Your task to perform on an android device: Add "razer deathadder" to the cart on walmart.com Image 0: 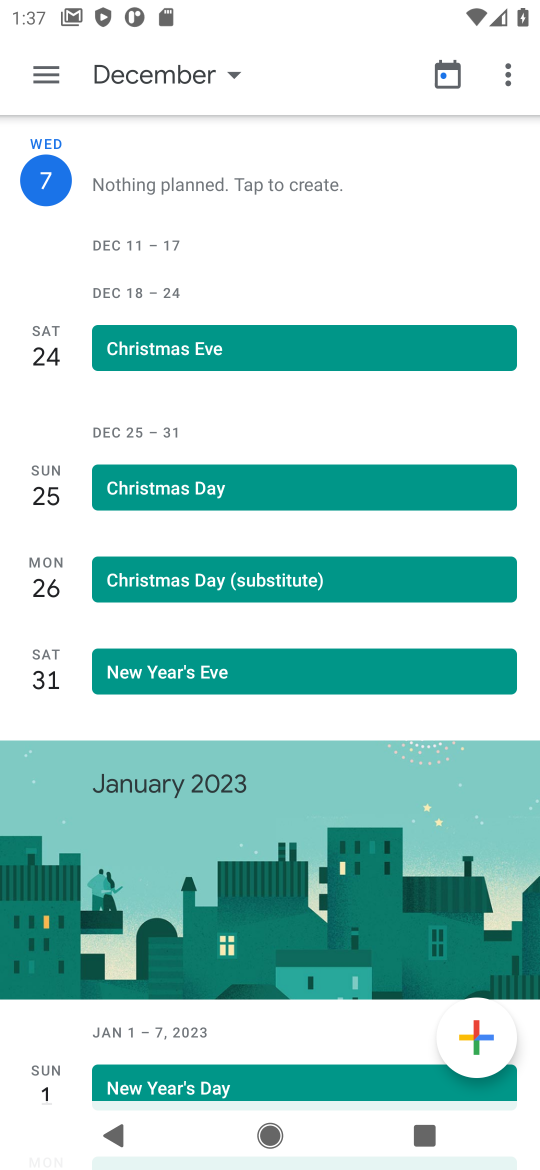
Step 0: press home button
Your task to perform on an android device: Add "razer deathadder" to the cart on walmart.com Image 1: 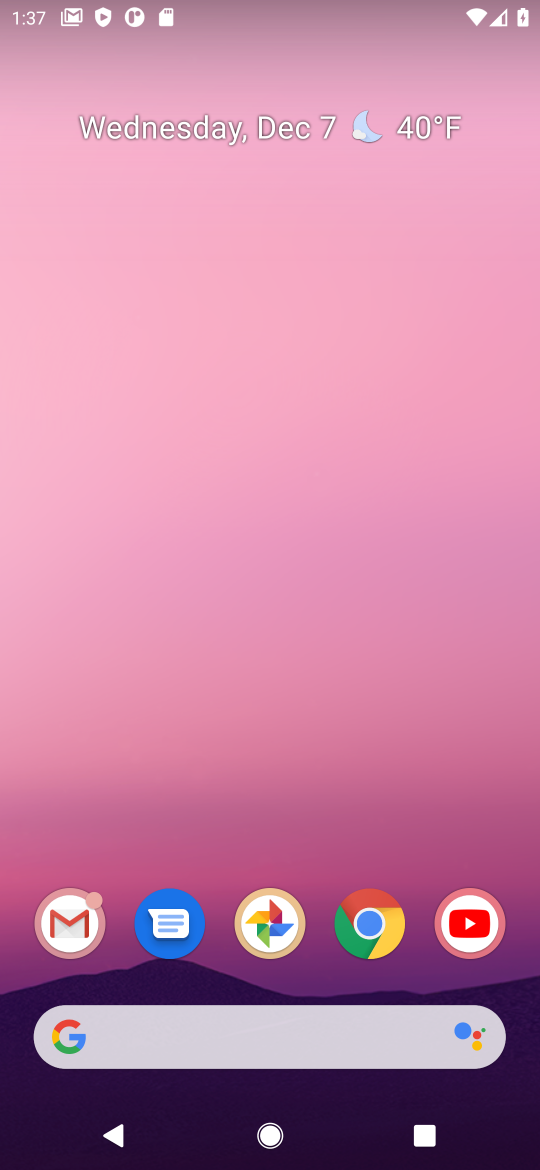
Step 1: click (370, 920)
Your task to perform on an android device: Add "razer deathadder" to the cart on walmart.com Image 2: 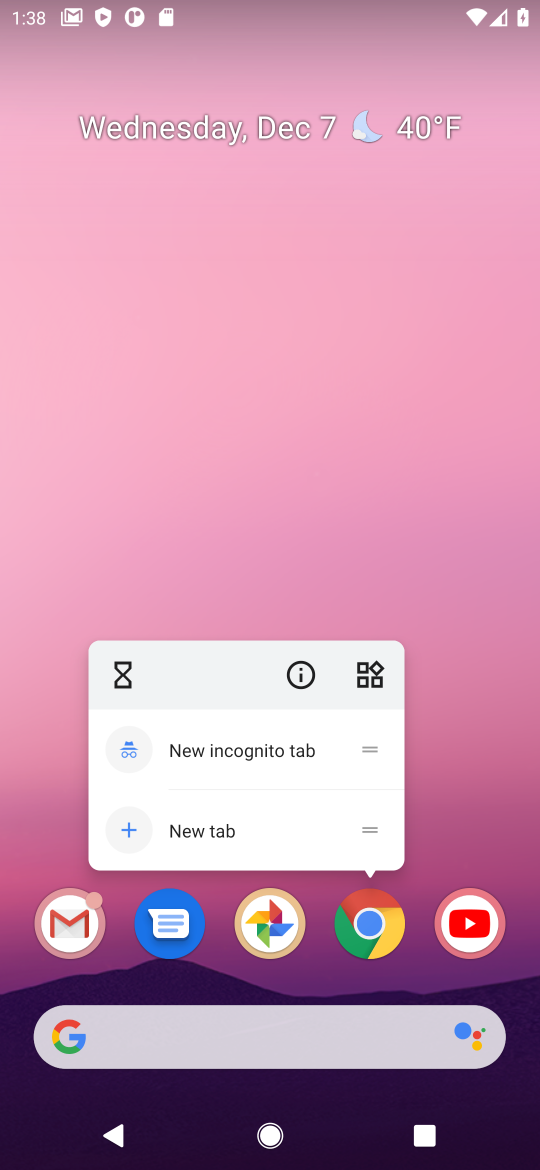
Step 2: click (371, 913)
Your task to perform on an android device: Add "razer deathadder" to the cart on walmart.com Image 3: 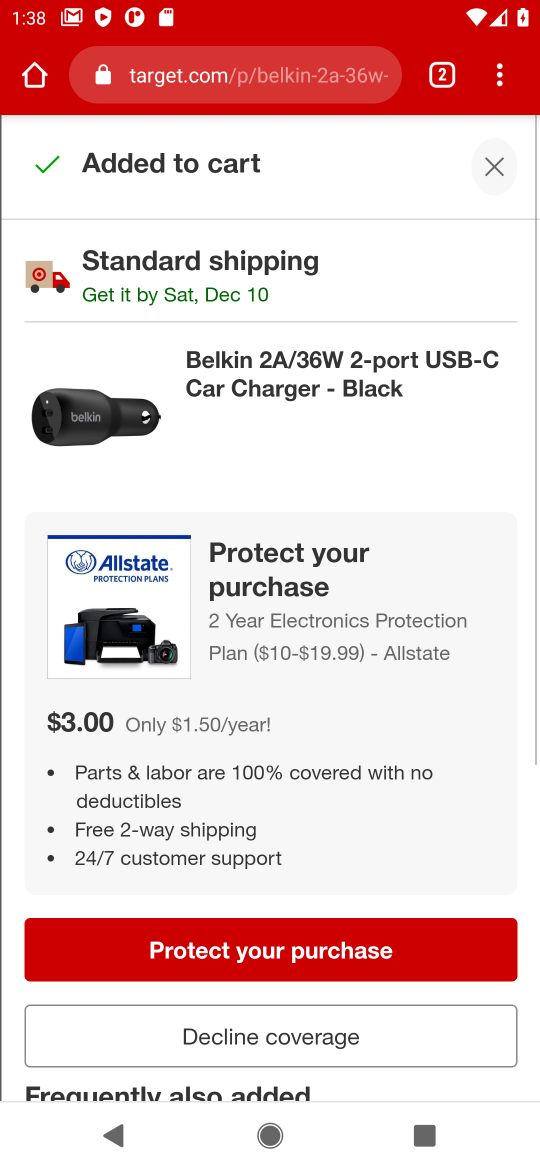
Step 3: click (240, 62)
Your task to perform on an android device: Add "razer deathadder" to the cart on walmart.com Image 4: 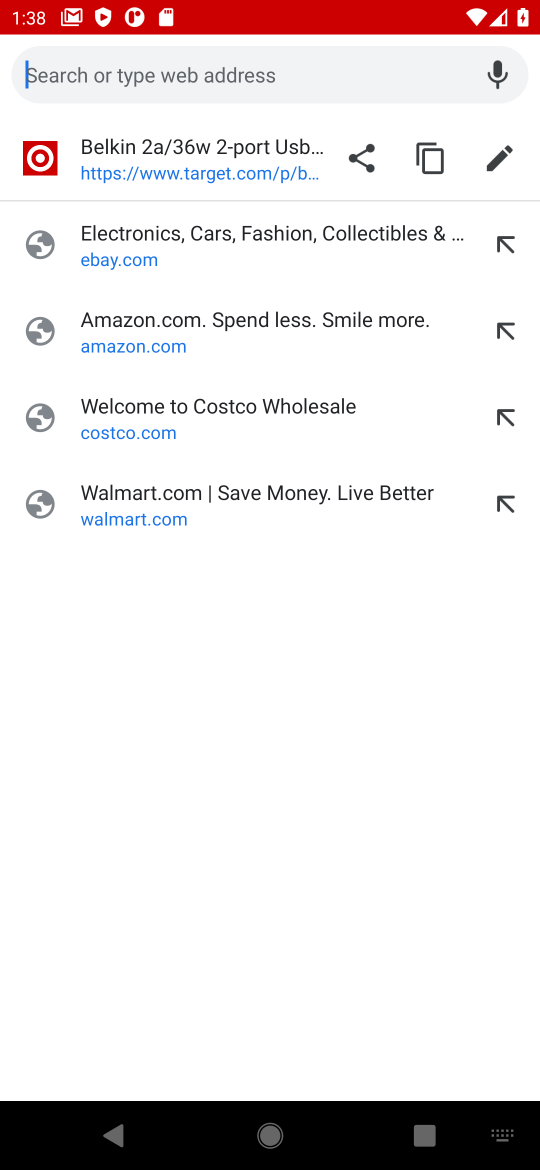
Step 4: type "walmart"
Your task to perform on an android device: Add "razer deathadder" to the cart on walmart.com Image 5: 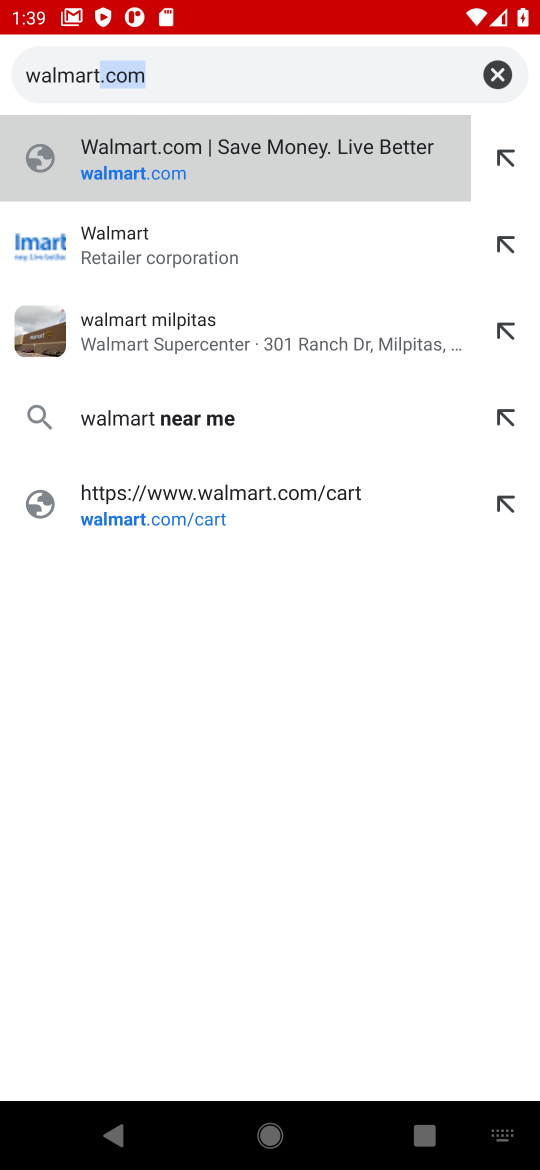
Step 5: click (275, 155)
Your task to perform on an android device: Add "razer deathadder" to the cart on walmart.com Image 6: 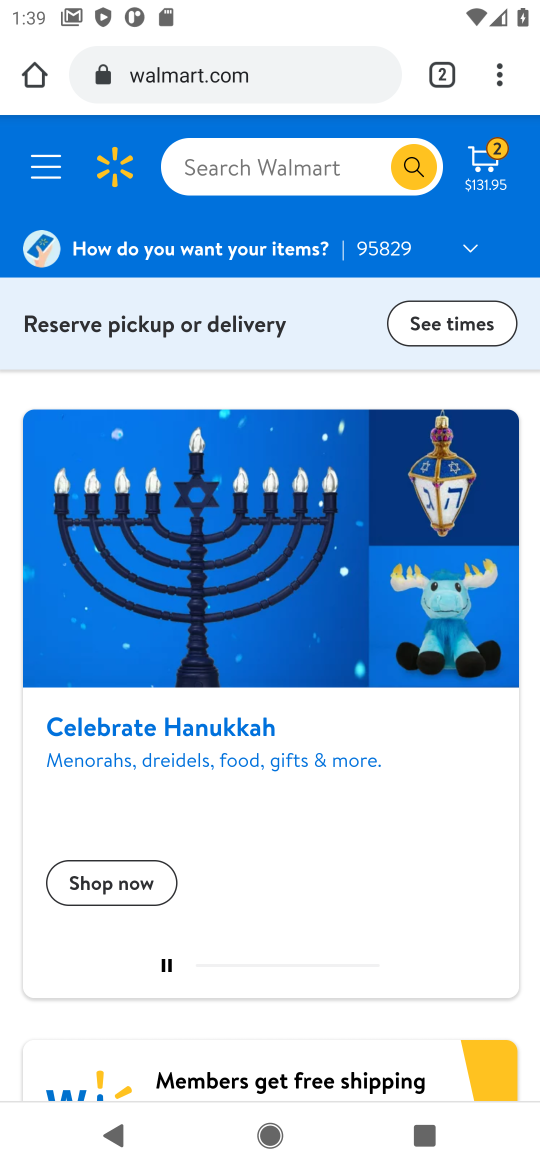
Step 6: click (275, 155)
Your task to perform on an android device: Add "razer deathadder" to the cart on walmart.com Image 7: 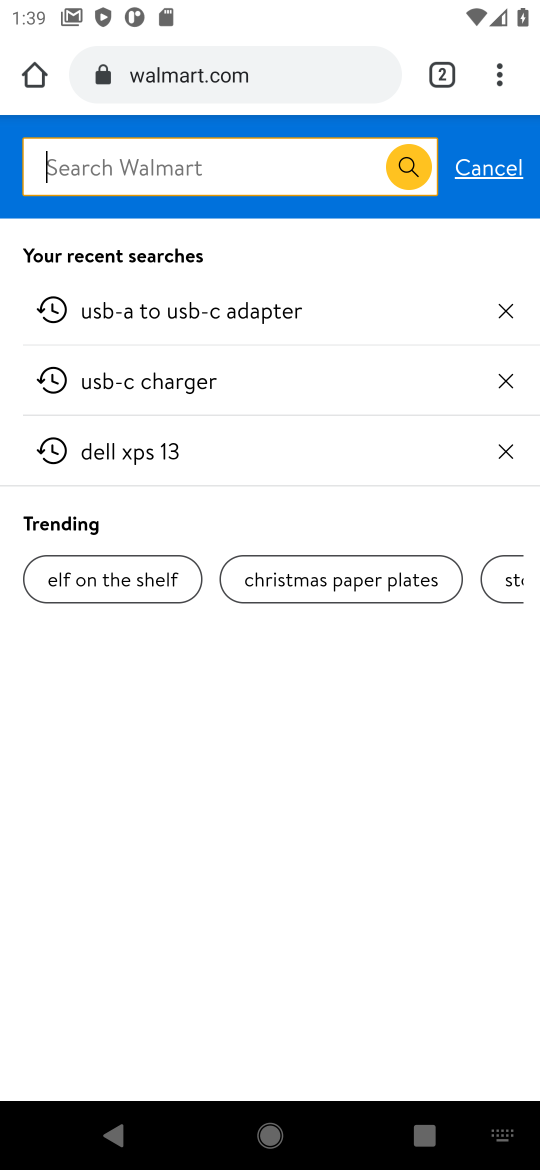
Step 7: type "razer deathadder"
Your task to perform on an android device: Add "razer deathadder" to the cart on walmart.com Image 8: 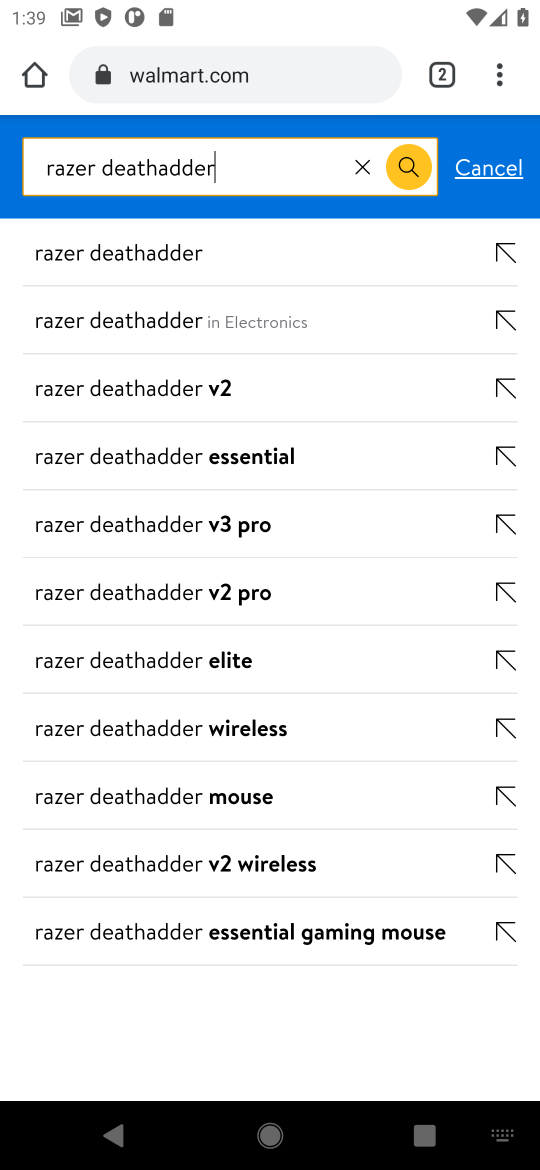
Step 8: click (148, 257)
Your task to perform on an android device: Add "razer deathadder" to the cart on walmart.com Image 9: 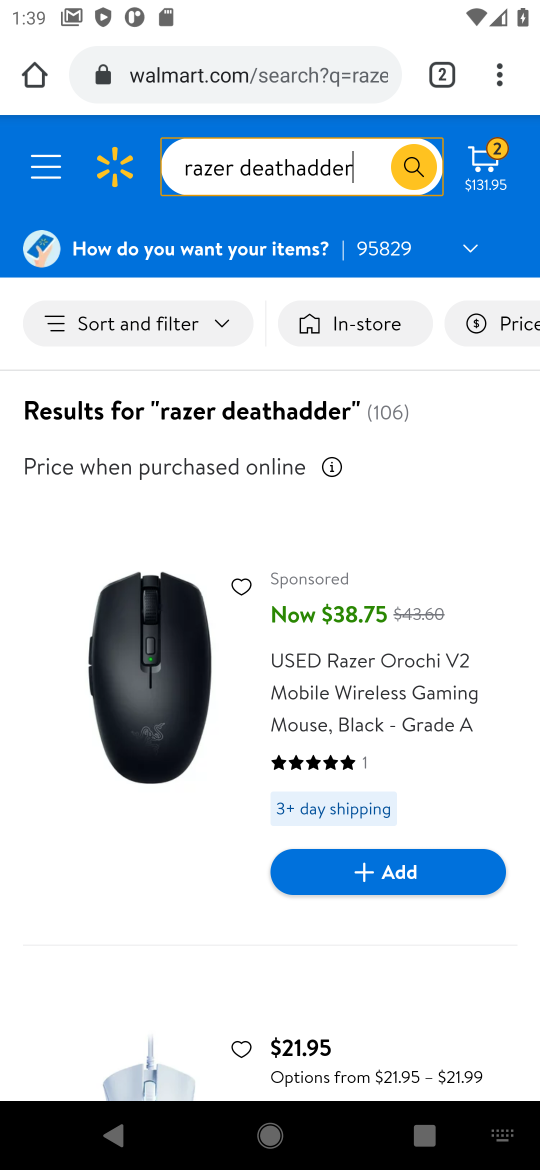
Step 9: click (428, 875)
Your task to perform on an android device: Add "razer deathadder" to the cart on walmart.com Image 10: 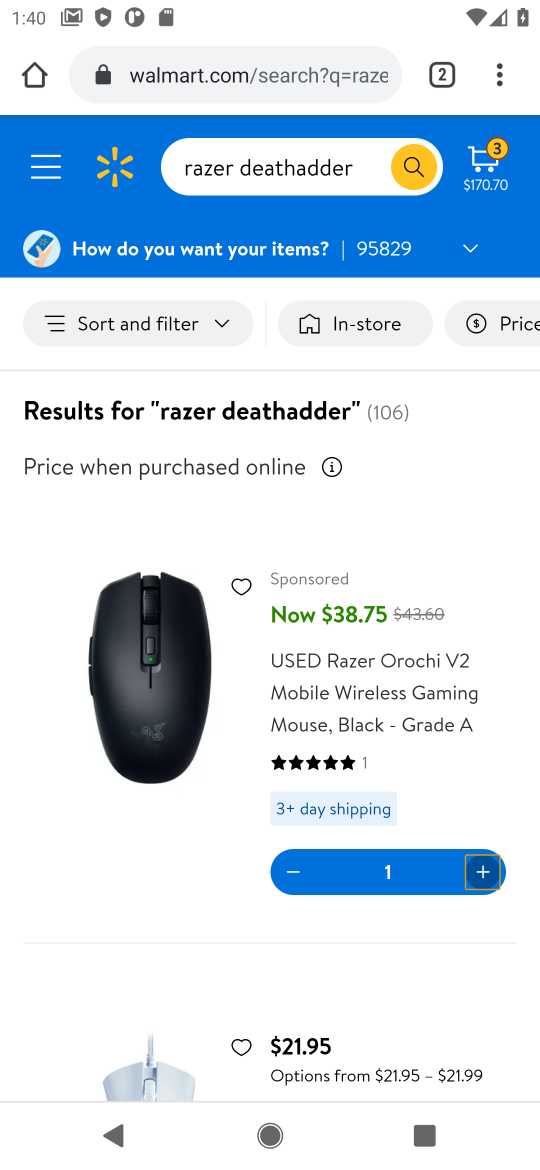
Step 10: task complete